Your task to perform on an android device: turn on data saver in the chrome app Image 0: 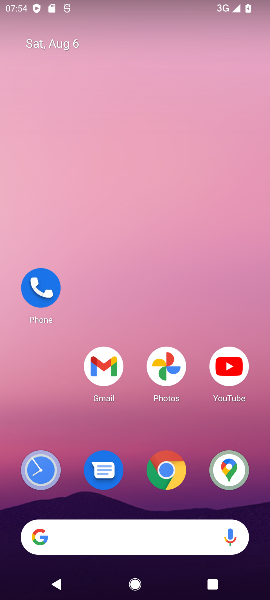
Step 0: drag from (87, 451) to (226, 71)
Your task to perform on an android device: turn on data saver in the chrome app Image 1: 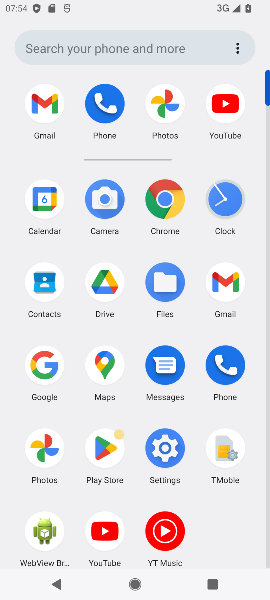
Step 1: click (164, 213)
Your task to perform on an android device: turn on data saver in the chrome app Image 2: 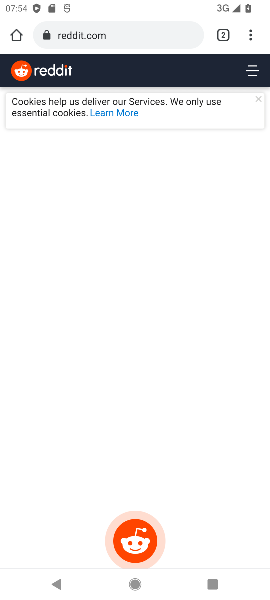
Step 2: drag from (246, 31) to (131, 499)
Your task to perform on an android device: turn on data saver in the chrome app Image 3: 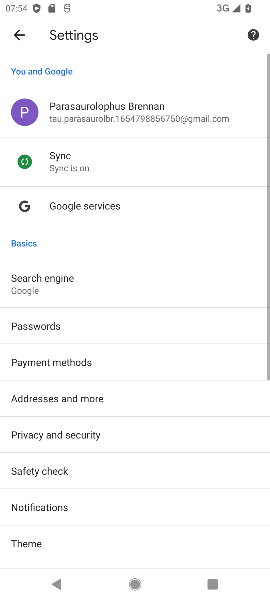
Step 3: drag from (95, 485) to (106, 124)
Your task to perform on an android device: turn on data saver in the chrome app Image 4: 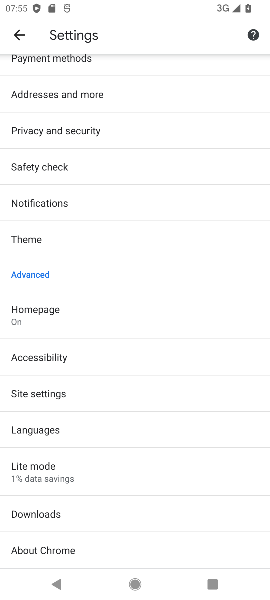
Step 4: click (50, 482)
Your task to perform on an android device: turn on data saver in the chrome app Image 5: 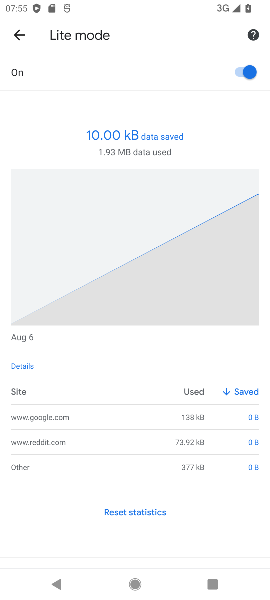
Step 5: task complete